Your task to perform on an android device: Open location settings Image 0: 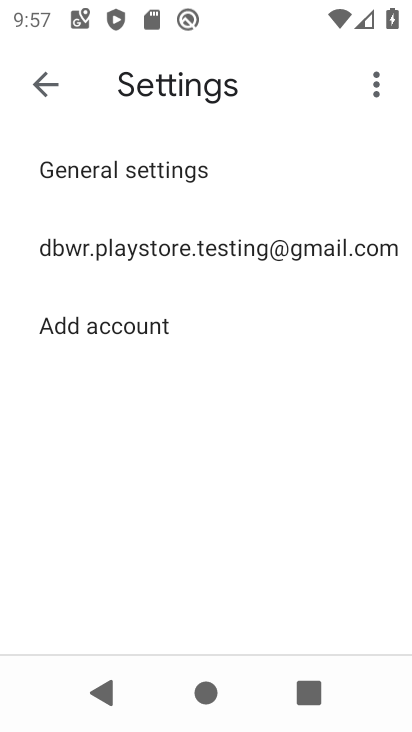
Step 0: press home button
Your task to perform on an android device: Open location settings Image 1: 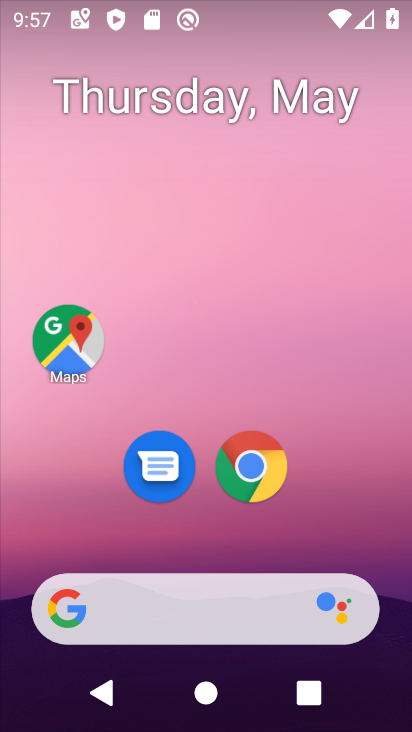
Step 1: drag from (347, 473) to (391, 185)
Your task to perform on an android device: Open location settings Image 2: 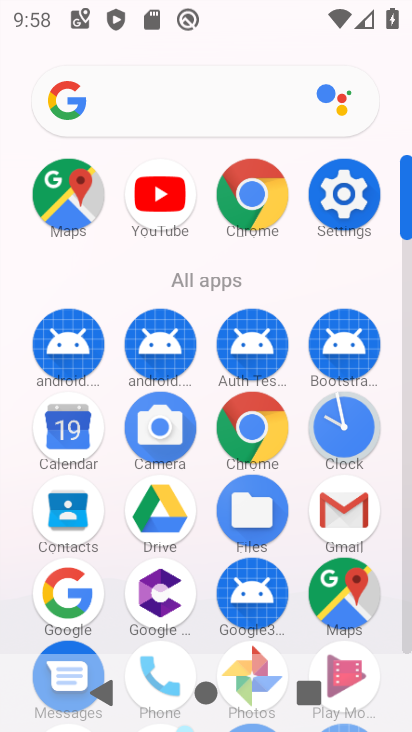
Step 2: click (345, 190)
Your task to perform on an android device: Open location settings Image 3: 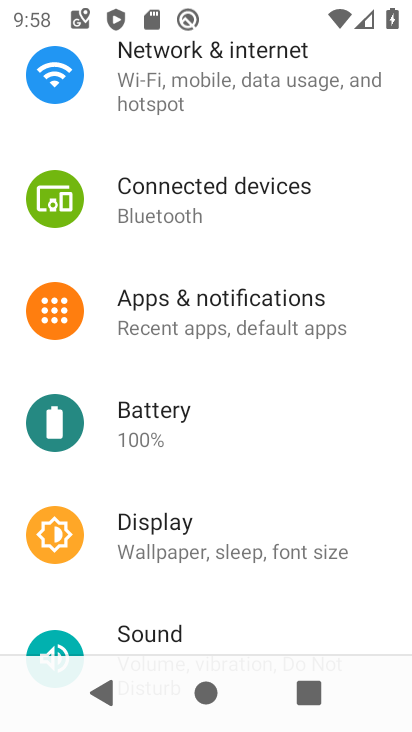
Step 3: drag from (226, 524) to (293, 138)
Your task to perform on an android device: Open location settings Image 4: 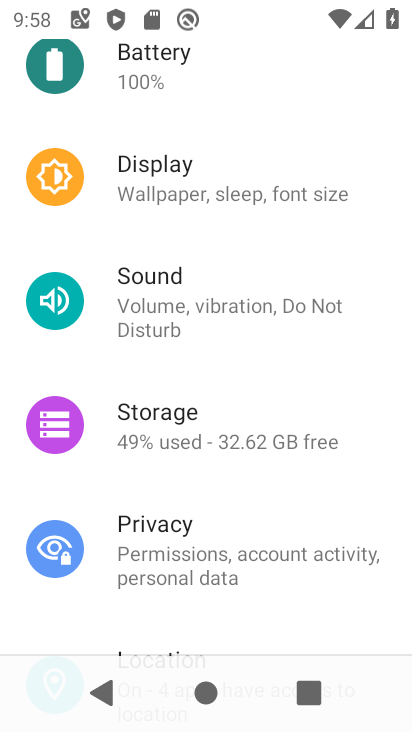
Step 4: drag from (238, 587) to (302, 257)
Your task to perform on an android device: Open location settings Image 5: 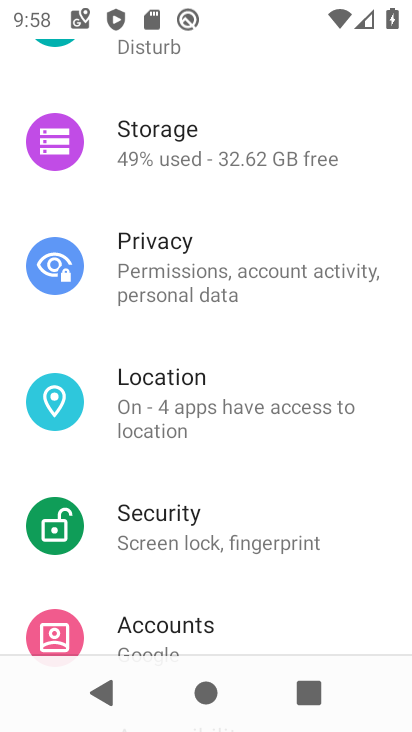
Step 5: click (239, 384)
Your task to perform on an android device: Open location settings Image 6: 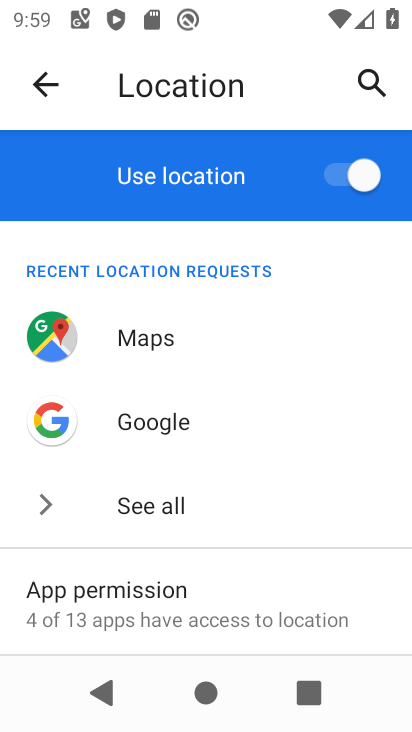
Step 6: task complete